Your task to perform on an android device: open app "DoorDash - Food Delivery" (install if not already installed) Image 0: 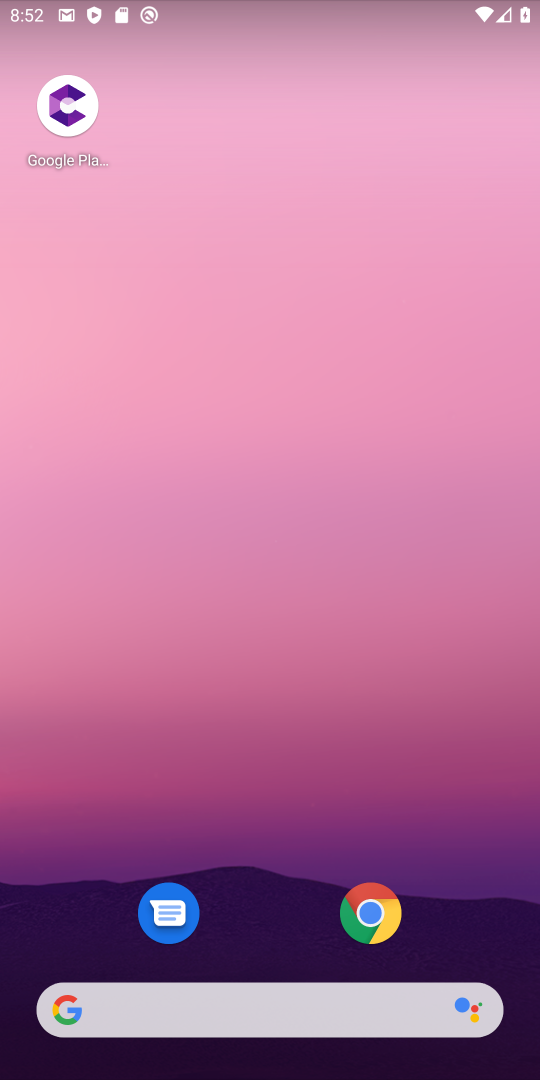
Step 0: drag from (295, 1015) to (288, 44)
Your task to perform on an android device: open app "DoorDash - Food Delivery" (install if not already installed) Image 1: 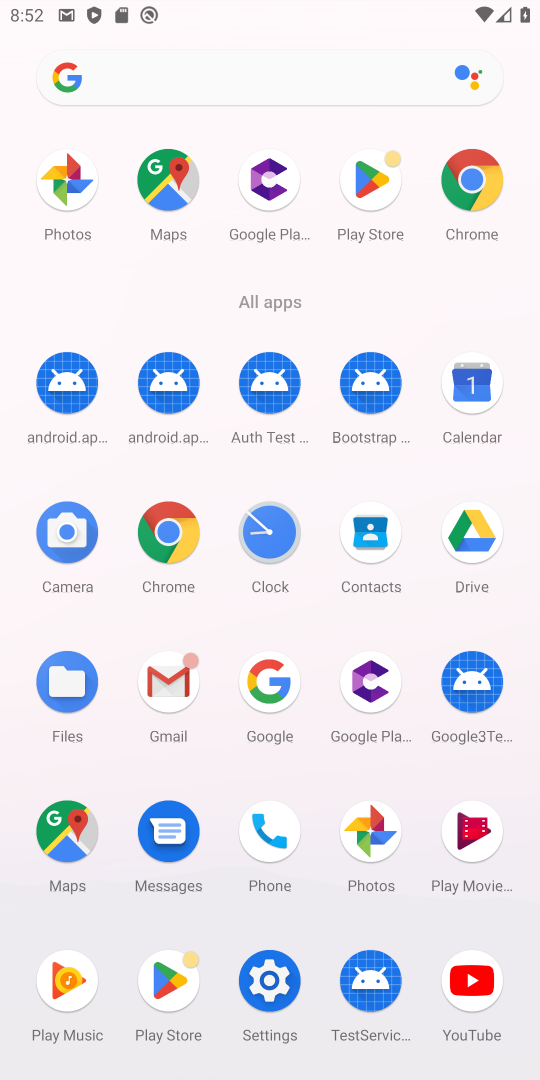
Step 1: click (363, 185)
Your task to perform on an android device: open app "DoorDash - Food Delivery" (install if not already installed) Image 2: 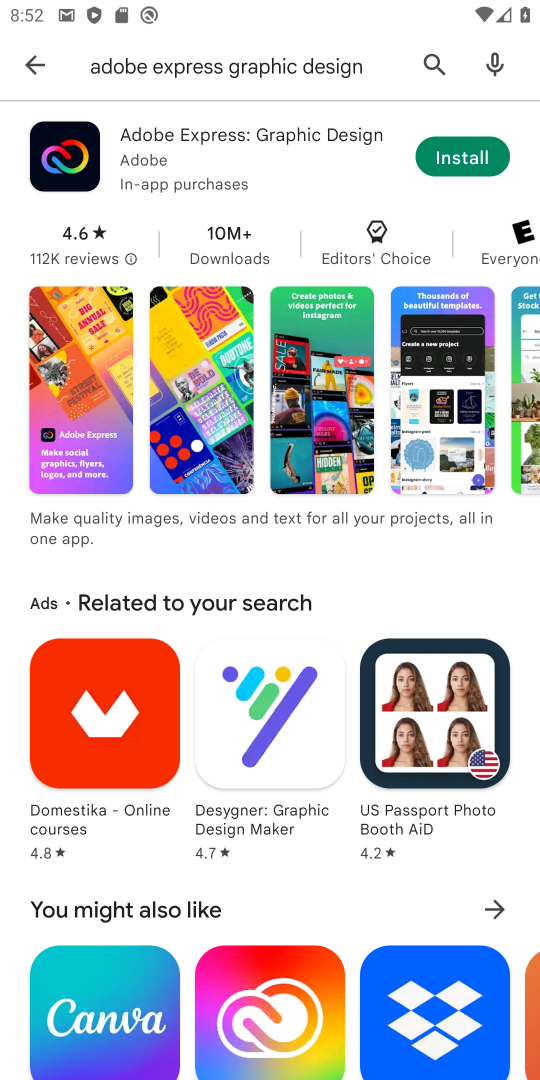
Step 2: click (432, 62)
Your task to perform on an android device: open app "DoorDash - Food Delivery" (install if not already installed) Image 3: 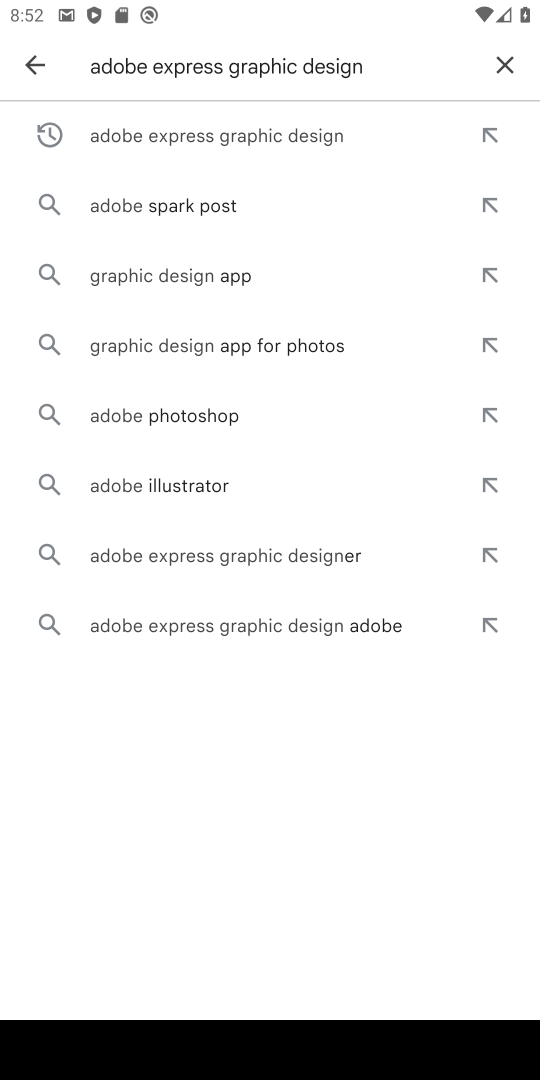
Step 3: click (505, 59)
Your task to perform on an android device: open app "DoorDash - Food Delivery" (install if not already installed) Image 4: 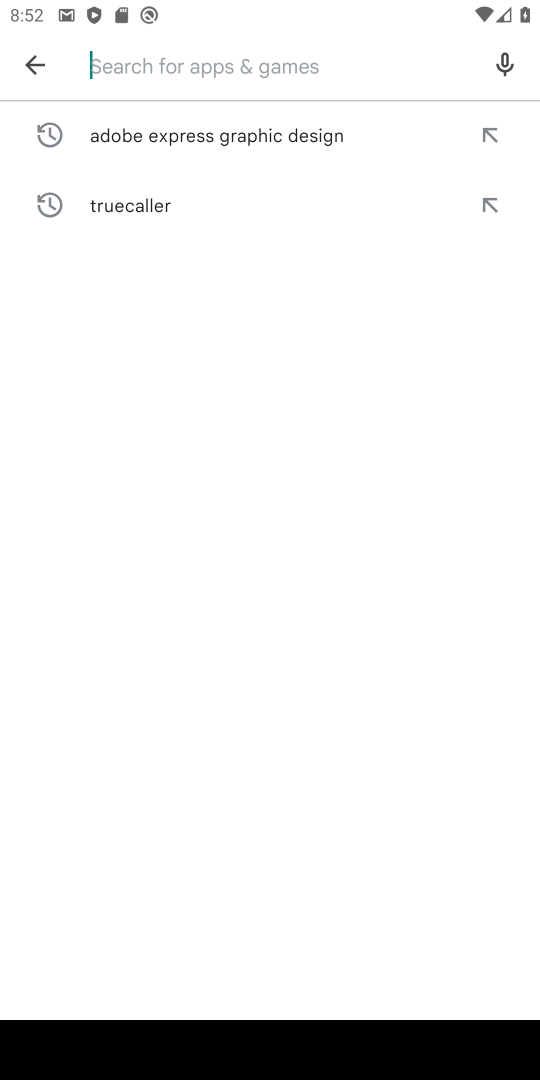
Step 4: type "DoorDash - Food Delivery"
Your task to perform on an android device: open app "DoorDash - Food Delivery" (install if not already installed) Image 5: 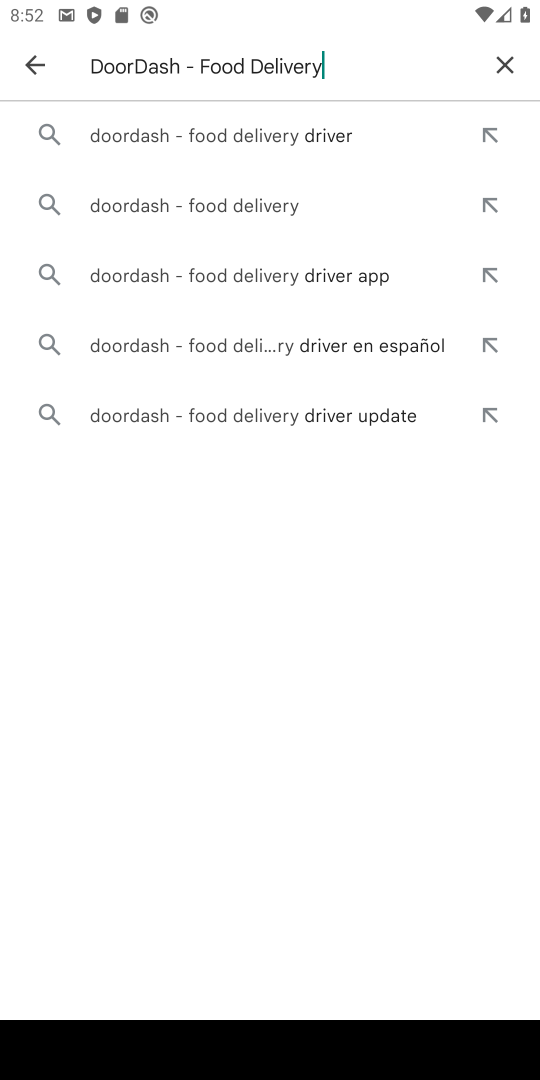
Step 5: click (193, 131)
Your task to perform on an android device: open app "DoorDash - Food Delivery" (install if not already installed) Image 6: 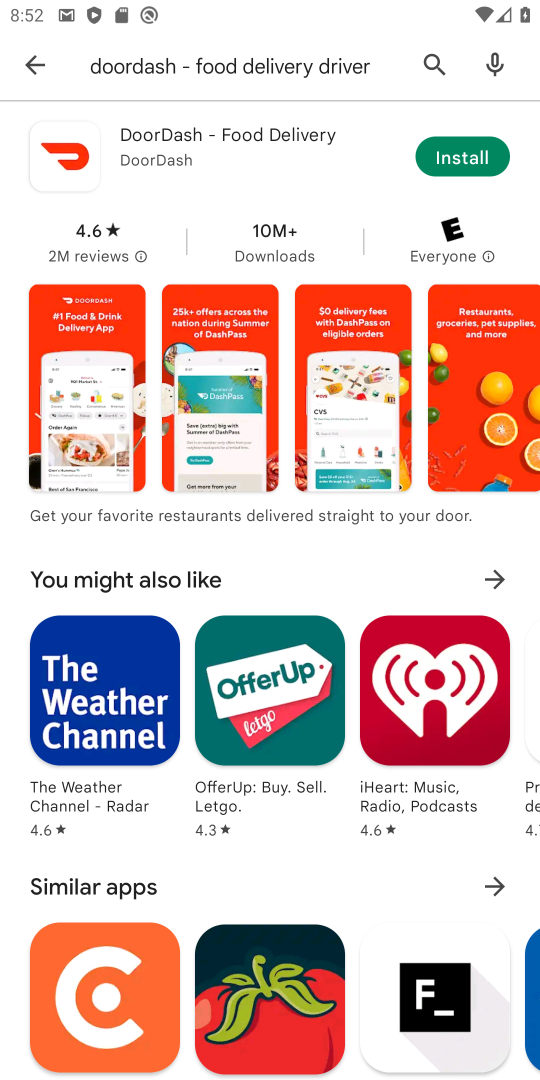
Step 6: click (483, 167)
Your task to perform on an android device: open app "DoorDash - Food Delivery" (install if not already installed) Image 7: 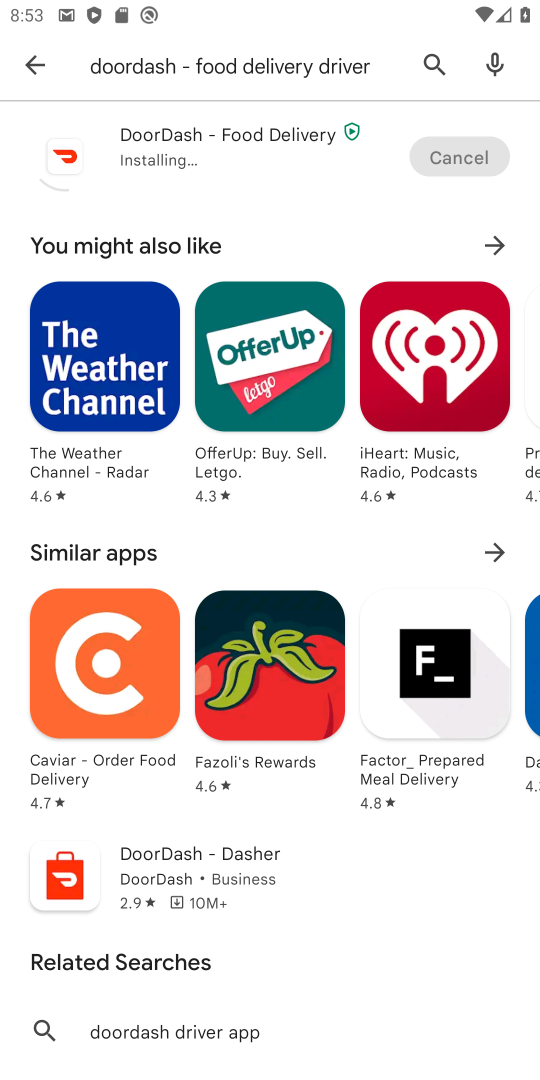
Step 7: drag from (269, 941) to (302, 1012)
Your task to perform on an android device: open app "DoorDash - Food Delivery" (install if not already installed) Image 8: 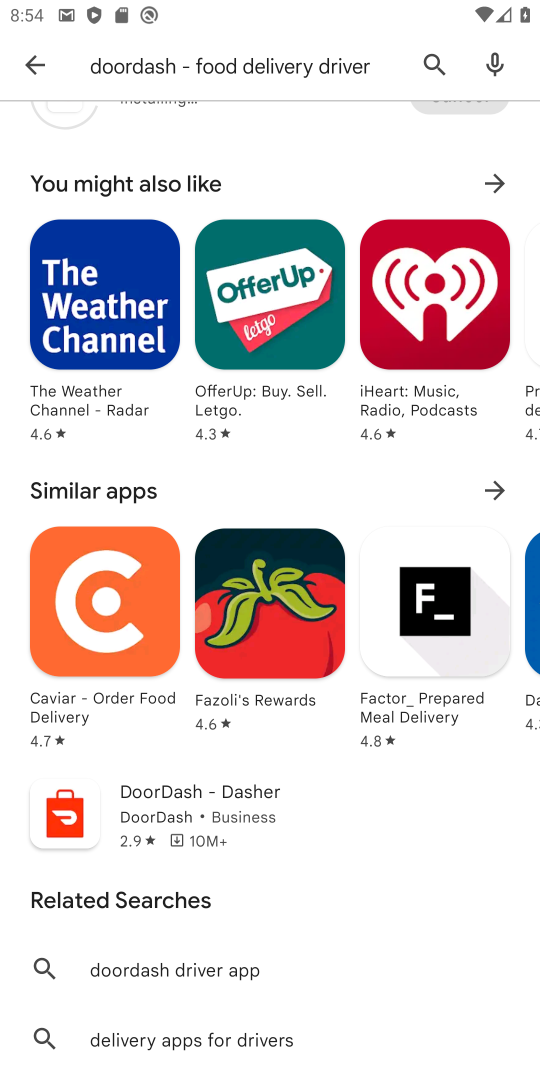
Step 8: drag from (496, 267) to (480, 787)
Your task to perform on an android device: open app "DoorDash - Food Delivery" (install if not already installed) Image 9: 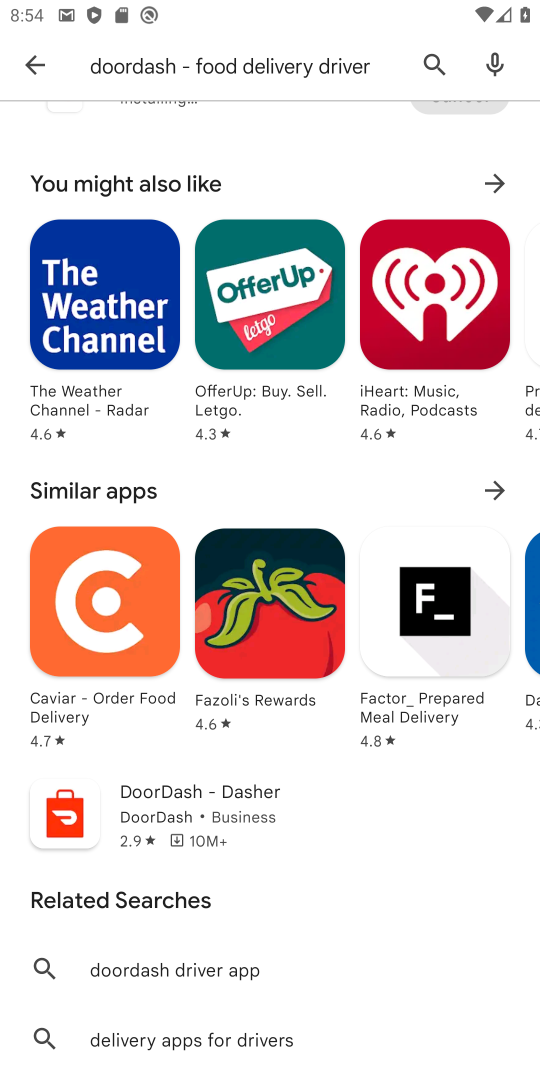
Step 9: drag from (262, 184) to (283, 810)
Your task to perform on an android device: open app "DoorDash - Food Delivery" (install if not already installed) Image 10: 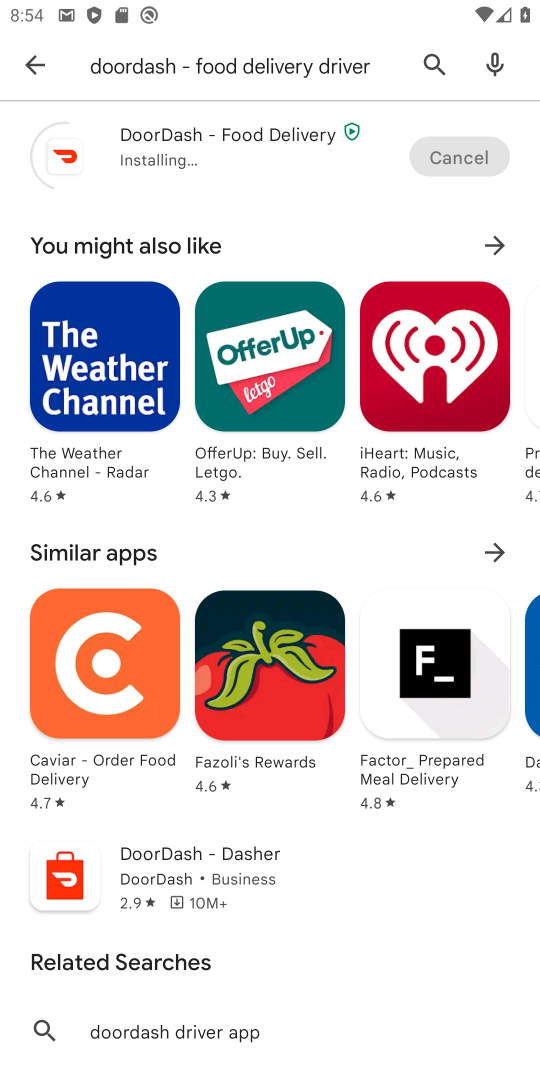
Step 10: drag from (353, 756) to (393, 1026)
Your task to perform on an android device: open app "DoorDash - Food Delivery" (install if not already installed) Image 11: 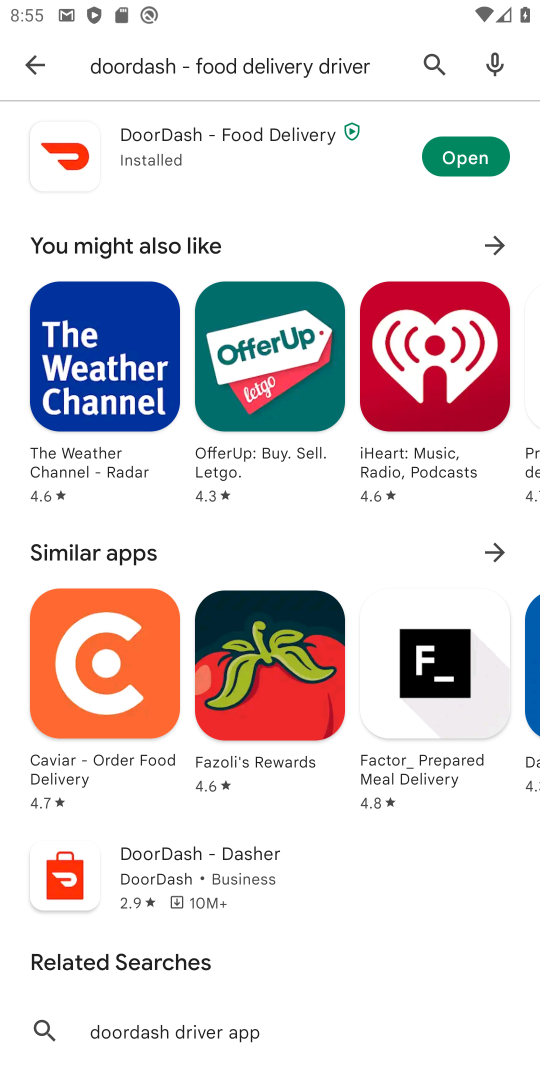
Step 11: click (427, 163)
Your task to perform on an android device: open app "DoorDash - Food Delivery" (install if not already installed) Image 12: 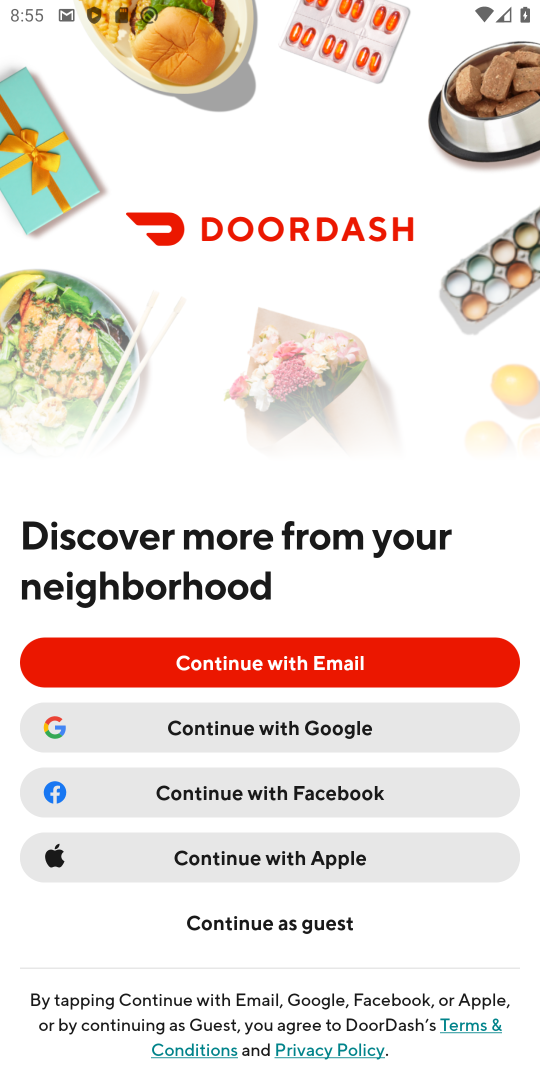
Step 12: task complete